Your task to perform on an android device: Show me productivity apps on the Play Store Image 0: 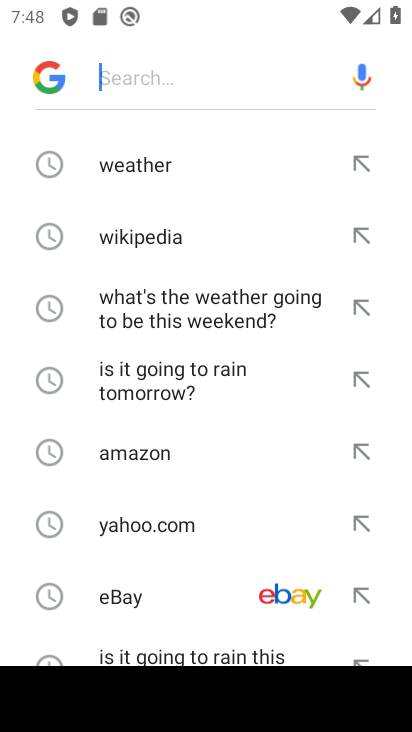
Step 0: press home button
Your task to perform on an android device: Show me productivity apps on the Play Store Image 1: 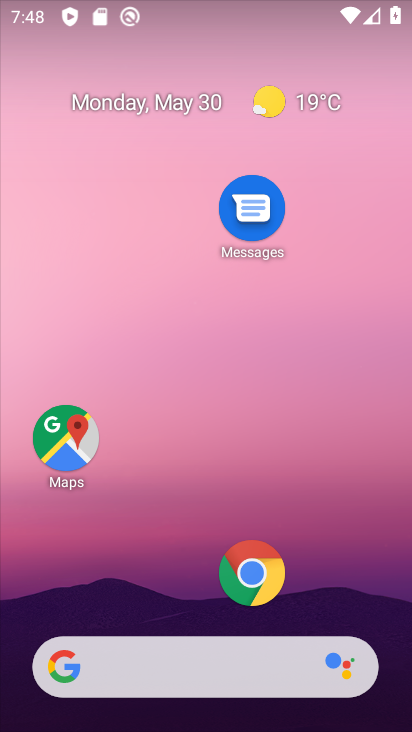
Step 1: drag from (173, 607) to (225, 183)
Your task to perform on an android device: Show me productivity apps on the Play Store Image 2: 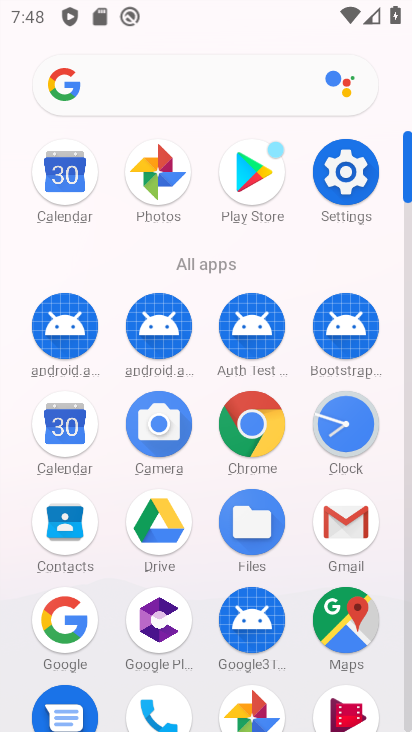
Step 2: drag from (112, 603) to (148, 403)
Your task to perform on an android device: Show me productivity apps on the Play Store Image 3: 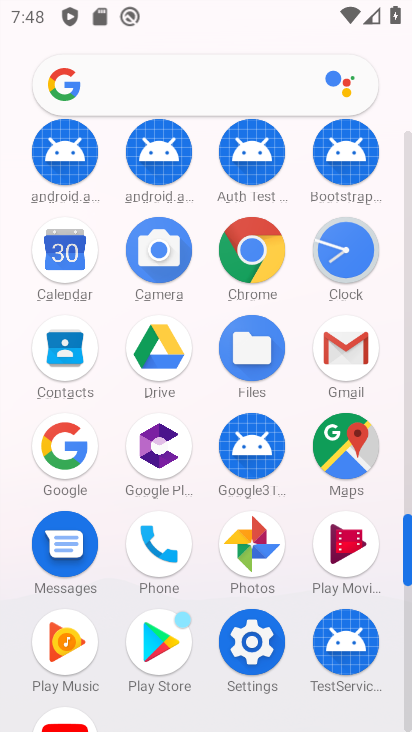
Step 3: drag from (117, 668) to (148, 479)
Your task to perform on an android device: Show me productivity apps on the Play Store Image 4: 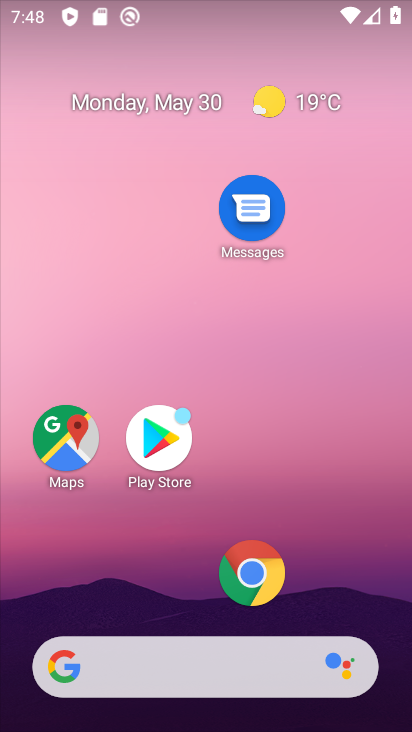
Step 4: click (155, 442)
Your task to perform on an android device: Show me productivity apps on the Play Store Image 5: 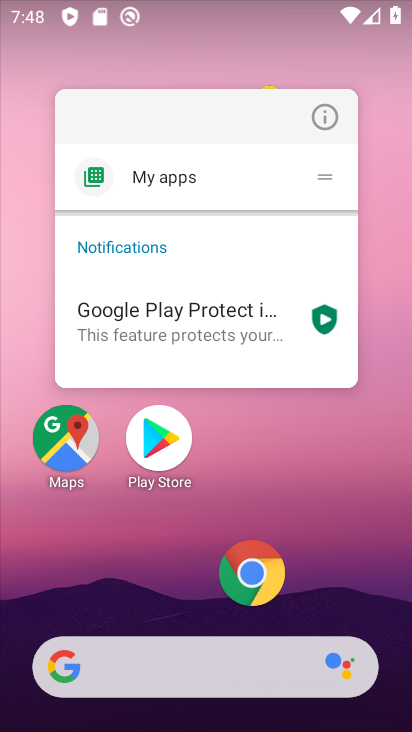
Step 5: click (156, 441)
Your task to perform on an android device: Show me productivity apps on the Play Store Image 6: 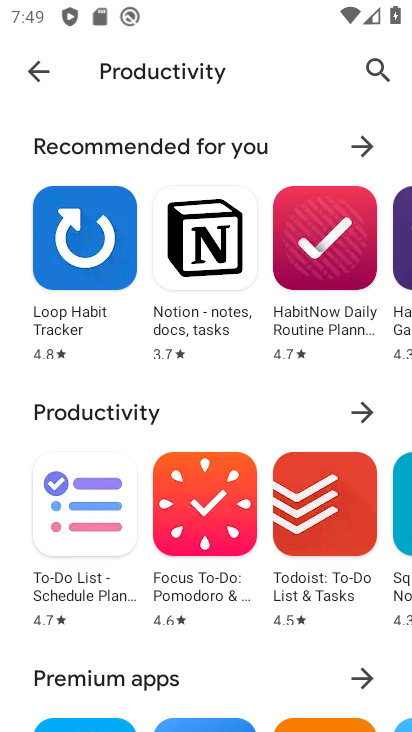
Step 6: task complete